Your task to perform on an android device: Go to location settings Image 0: 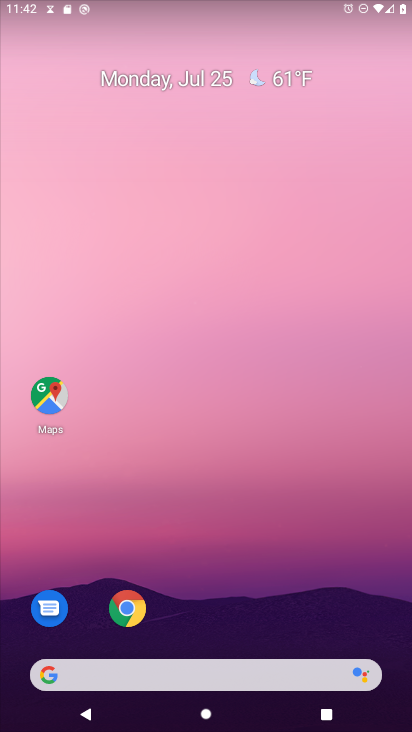
Step 0: drag from (234, 679) to (250, 37)
Your task to perform on an android device: Go to location settings Image 1: 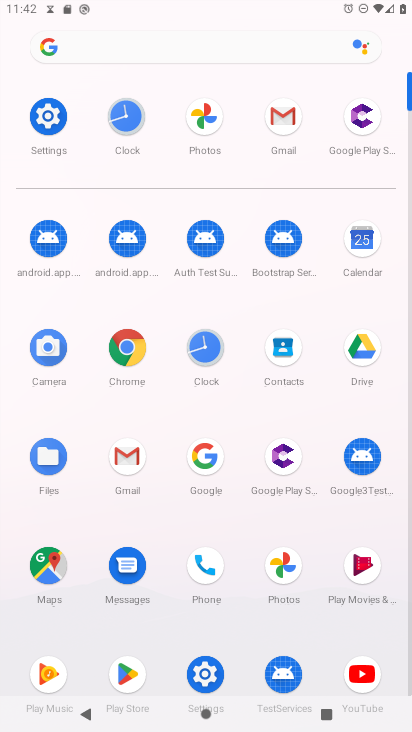
Step 1: click (46, 115)
Your task to perform on an android device: Go to location settings Image 2: 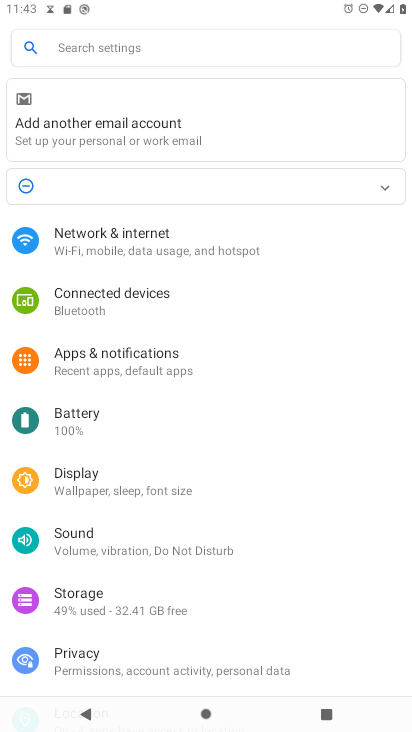
Step 2: drag from (129, 580) to (112, 402)
Your task to perform on an android device: Go to location settings Image 3: 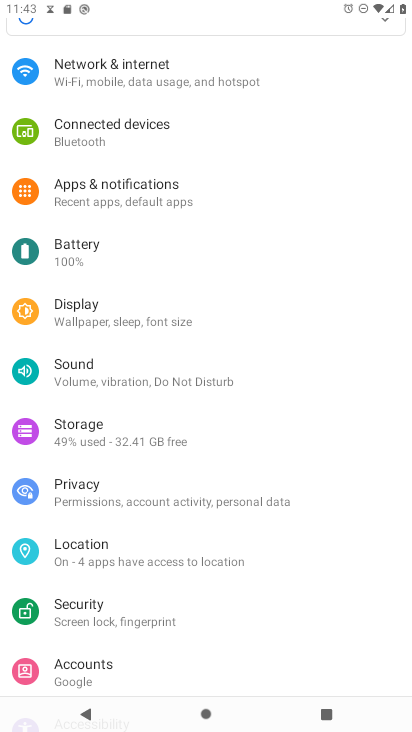
Step 3: click (106, 551)
Your task to perform on an android device: Go to location settings Image 4: 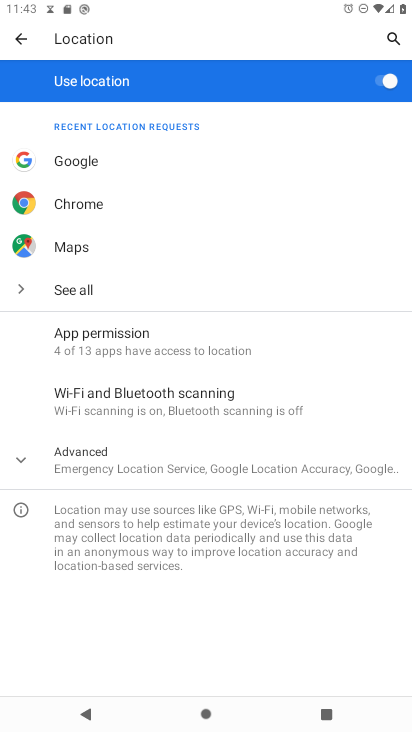
Step 4: task complete